Your task to perform on an android device: Search for Mexican restaurants on Maps Image 0: 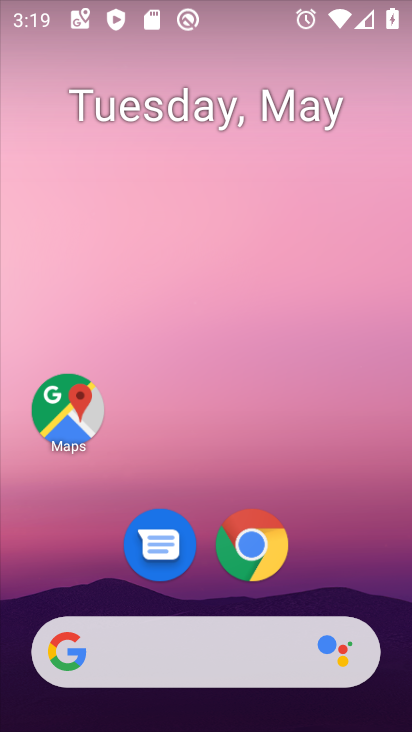
Step 0: click (60, 392)
Your task to perform on an android device: Search for Mexican restaurants on Maps Image 1: 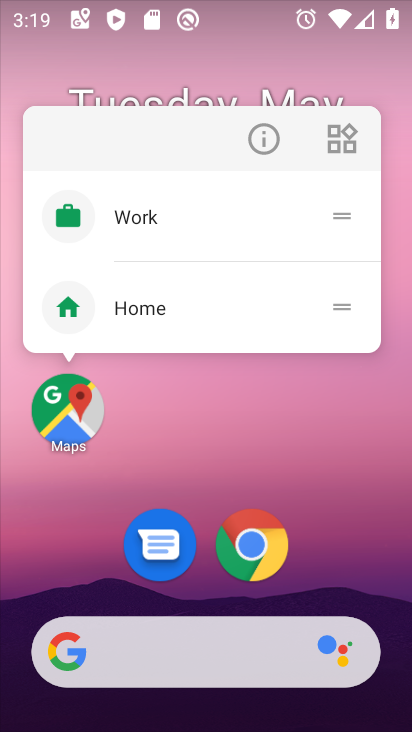
Step 1: click (72, 396)
Your task to perform on an android device: Search for Mexican restaurants on Maps Image 2: 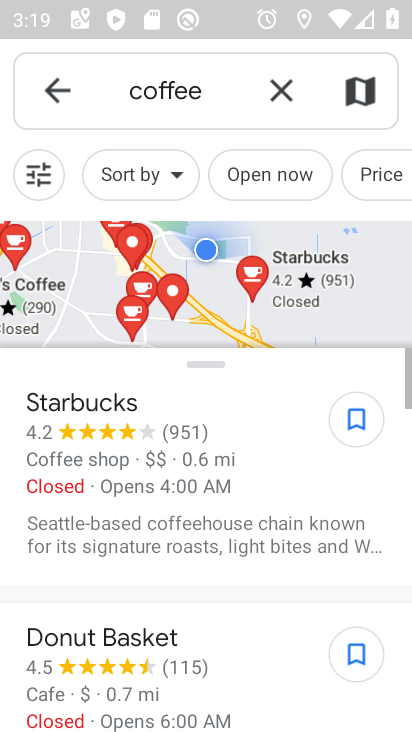
Step 2: click (280, 96)
Your task to perform on an android device: Search for Mexican restaurants on Maps Image 3: 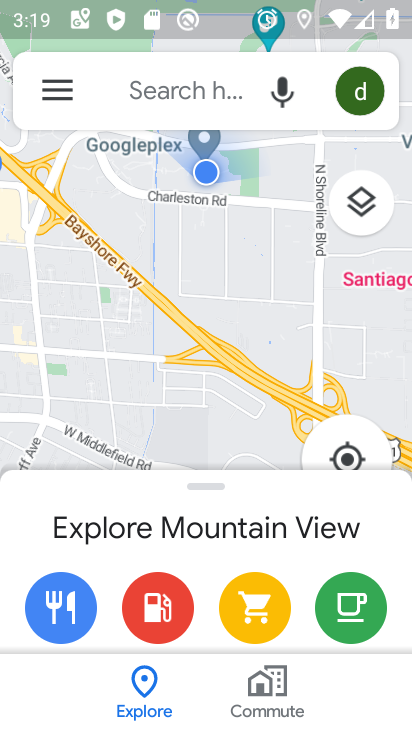
Step 3: click (147, 88)
Your task to perform on an android device: Search for Mexican restaurants on Maps Image 4: 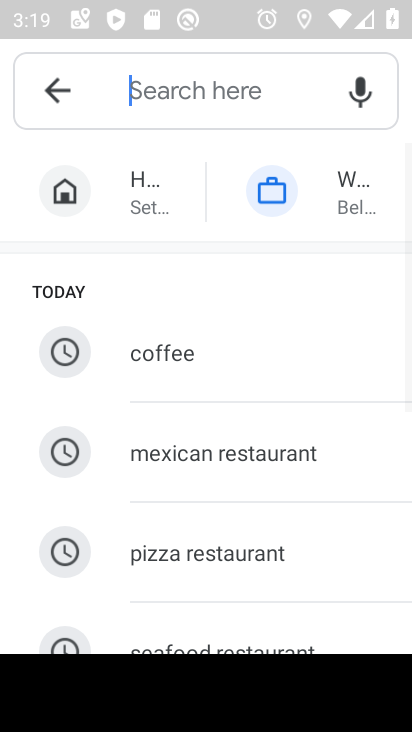
Step 4: click (248, 467)
Your task to perform on an android device: Search for Mexican restaurants on Maps Image 5: 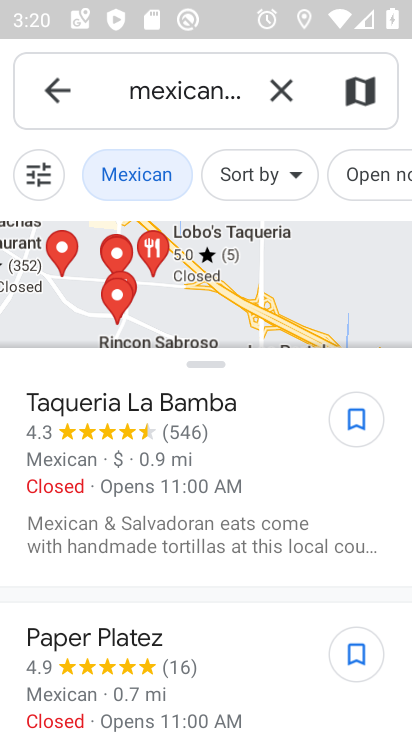
Step 5: task complete